Your task to perform on an android device: Go to Google Image 0: 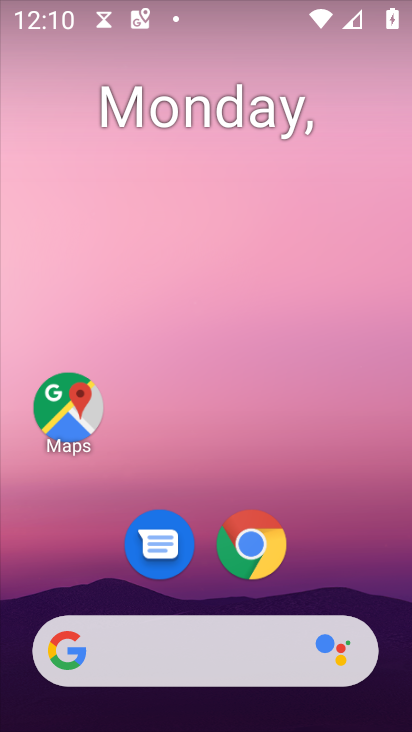
Step 0: drag from (336, 529) to (351, 308)
Your task to perform on an android device: Go to Google Image 1: 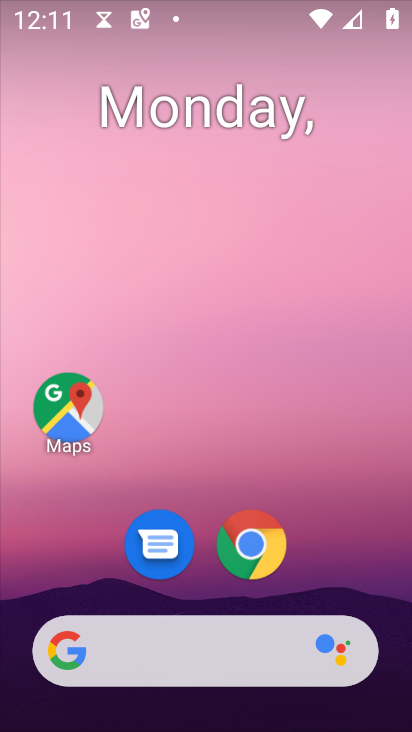
Step 1: drag from (333, 492) to (347, 193)
Your task to perform on an android device: Go to Google Image 2: 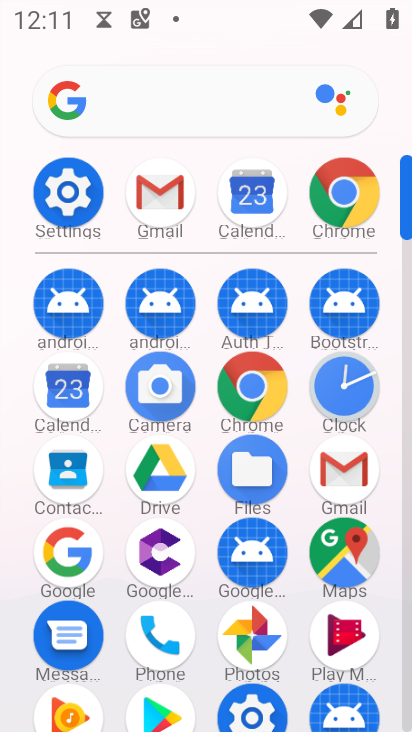
Step 2: click (80, 532)
Your task to perform on an android device: Go to Google Image 3: 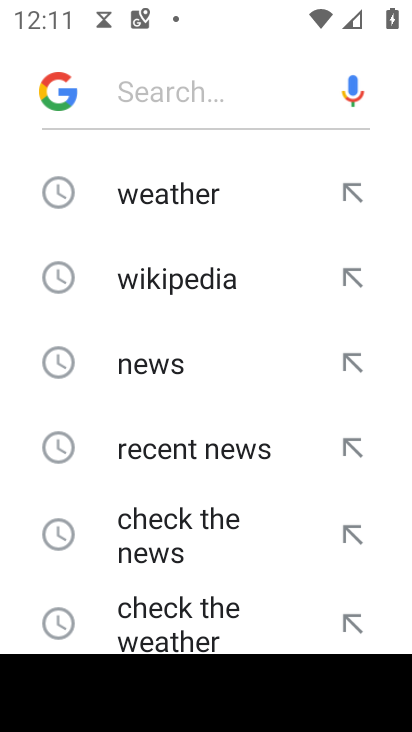
Step 3: task complete